Your task to perform on an android device: all mails in gmail Image 0: 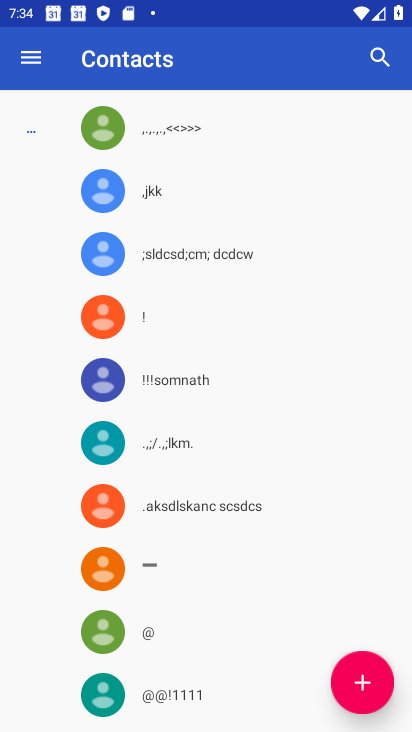
Step 0: press home button
Your task to perform on an android device: all mails in gmail Image 1: 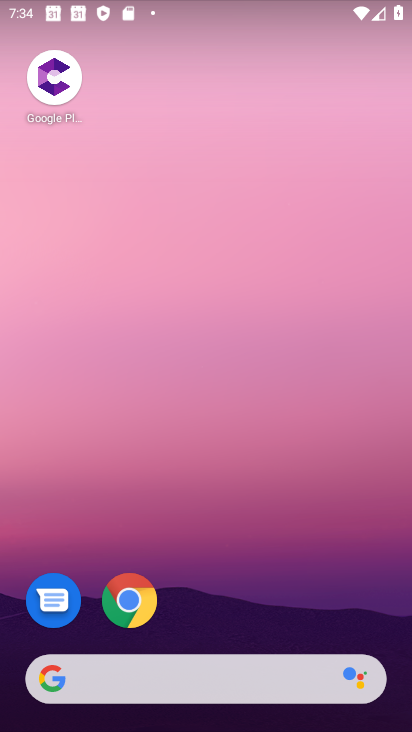
Step 1: drag from (211, 644) to (318, 24)
Your task to perform on an android device: all mails in gmail Image 2: 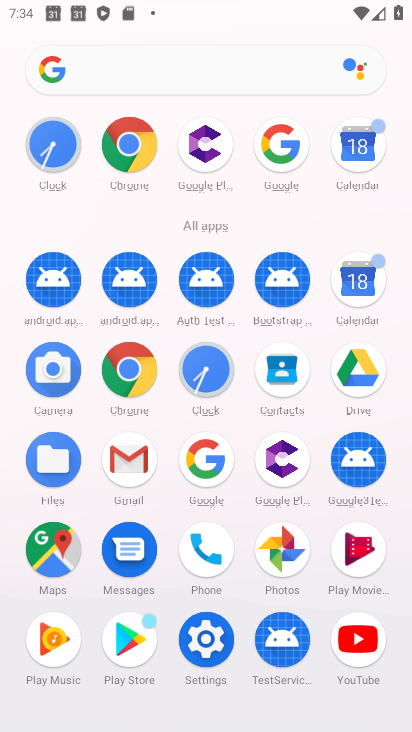
Step 2: click (118, 461)
Your task to perform on an android device: all mails in gmail Image 3: 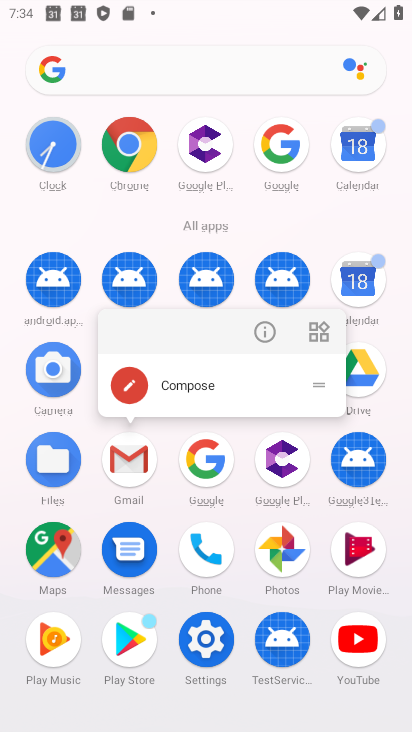
Step 3: click (129, 452)
Your task to perform on an android device: all mails in gmail Image 4: 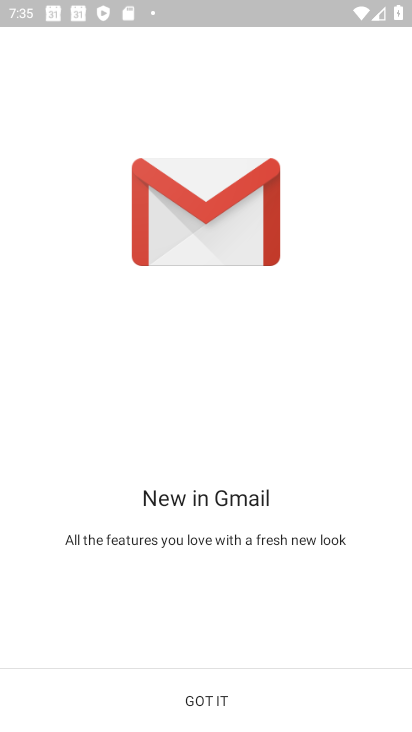
Step 4: click (210, 693)
Your task to perform on an android device: all mails in gmail Image 5: 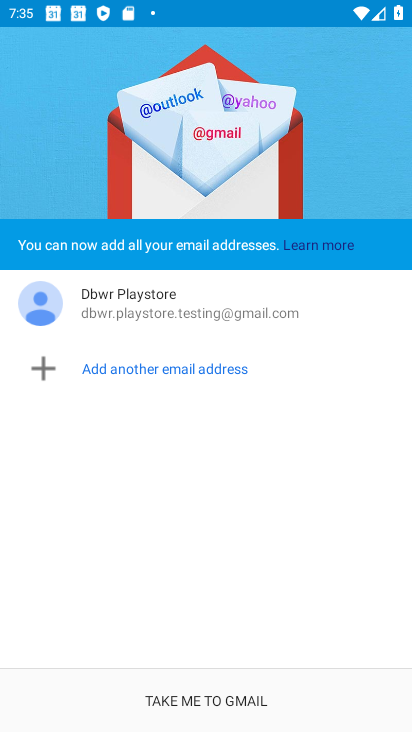
Step 5: click (210, 702)
Your task to perform on an android device: all mails in gmail Image 6: 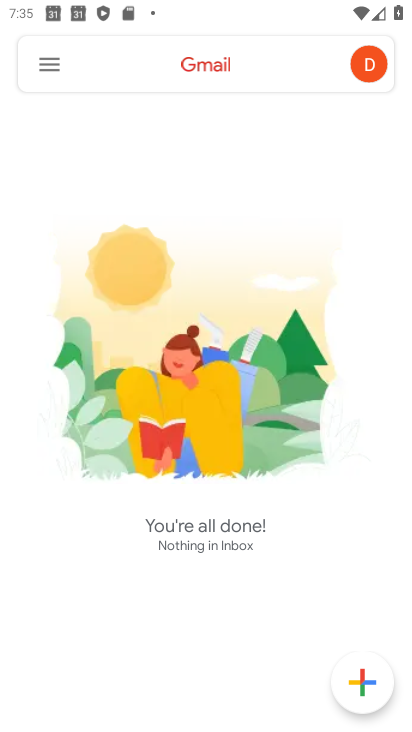
Step 6: click (46, 66)
Your task to perform on an android device: all mails in gmail Image 7: 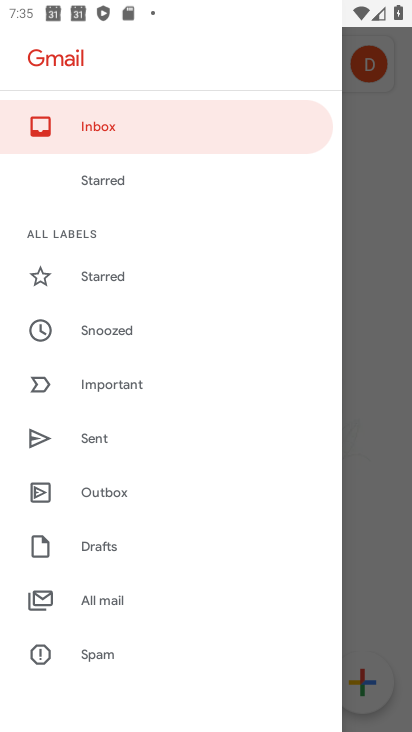
Step 7: click (98, 595)
Your task to perform on an android device: all mails in gmail Image 8: 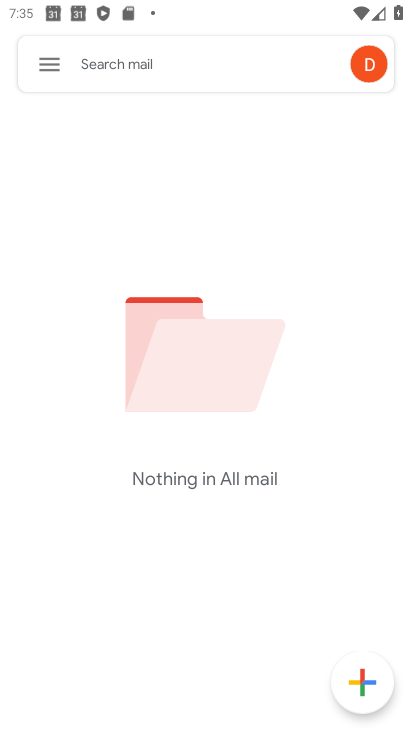
Step 8: task complete